Your task to perform on an android device: turn off location history Image 0: 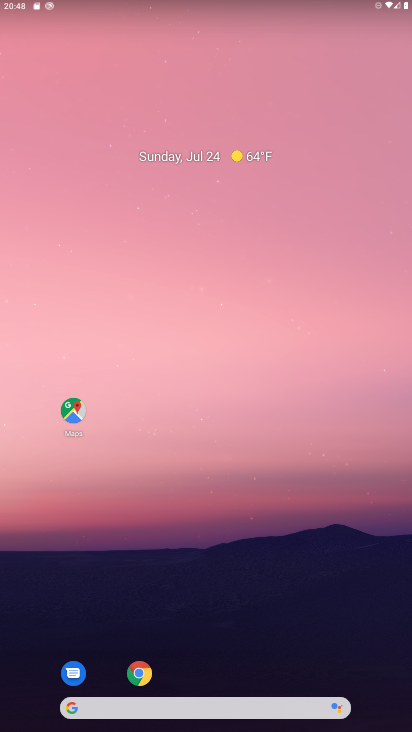
Step 0: drag from (336, 656) to (303, 109)
Your task to perform on an android device: turn off location history Image 1: 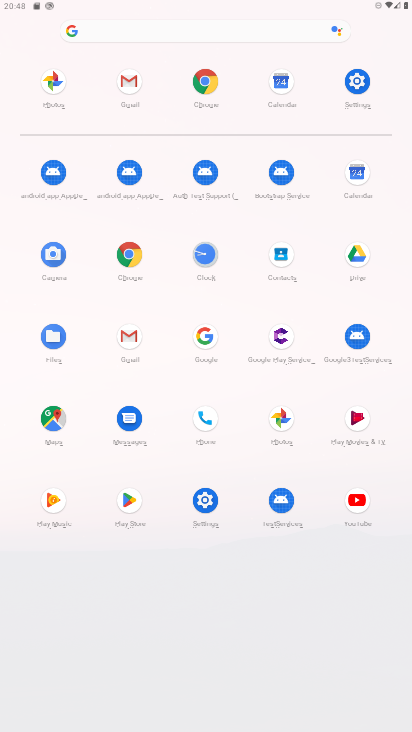
Step 1: click (203, 500)
Your task to perform on an android device: turn off location history Image 2: 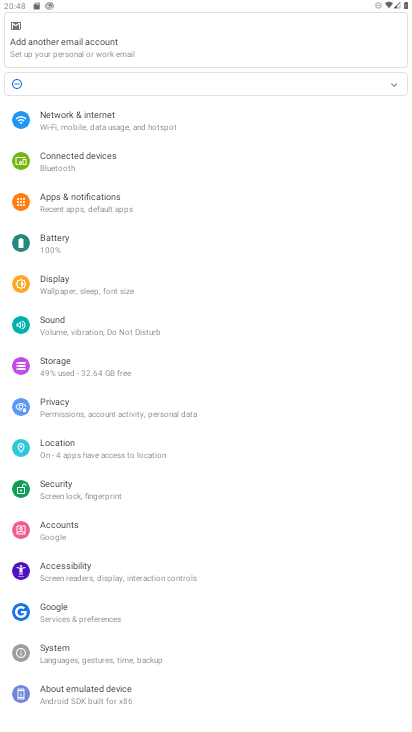
Step 2: click (133, 453)
Your task to perform on an android device: turn off location history Image 3: 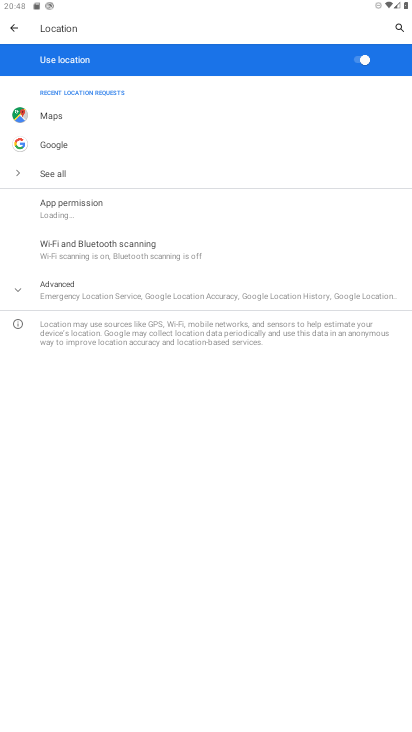
Step 3: click (109, 291)
Your task to perform on an android device: turn off location history Image 4: 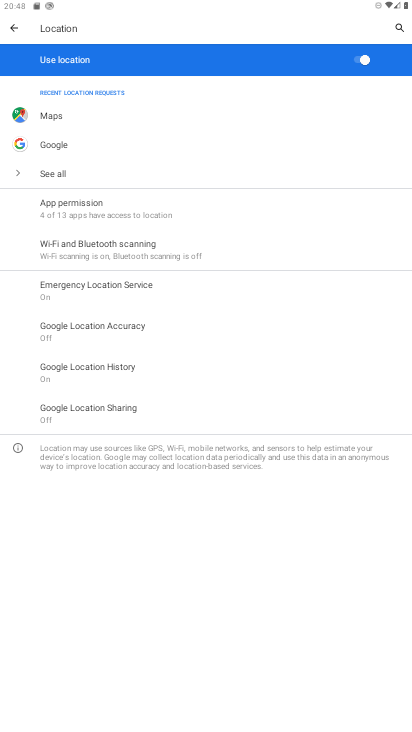
Step 4: click (134, 368)
Your task to perform on an android device: turn off location history Image 5: 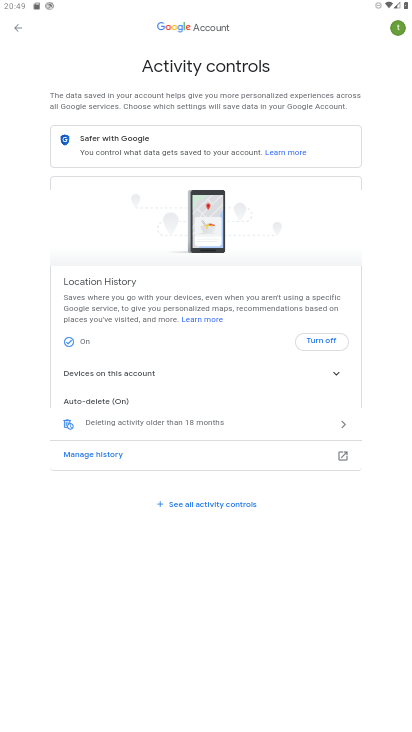
Step 5: click (317, 341)
Your task to perform on an android device: turn off location history Image 6: 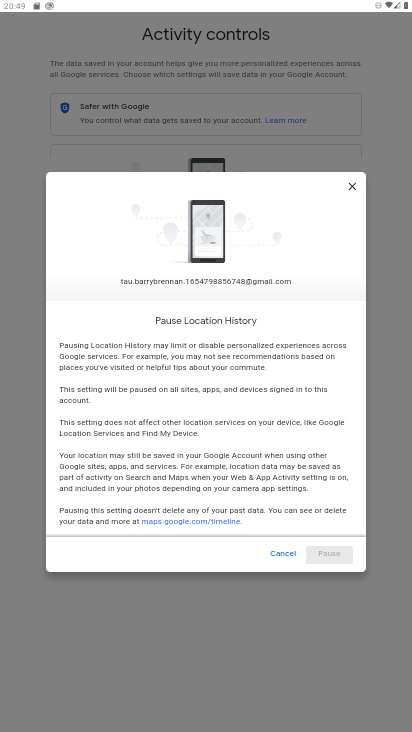
Step 6: drag from (337, 490) to (283, 262)
Your task to perform on an android device: turn off location history Image 7: 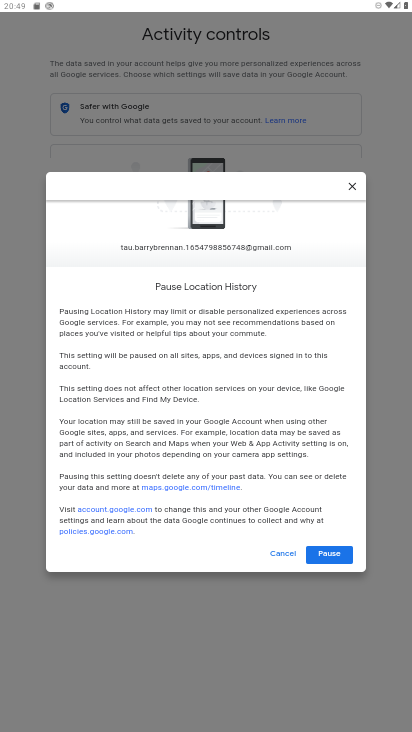
Step 7: click (338, 557)
Your task to perform on an android device: turn off location history Image 8: 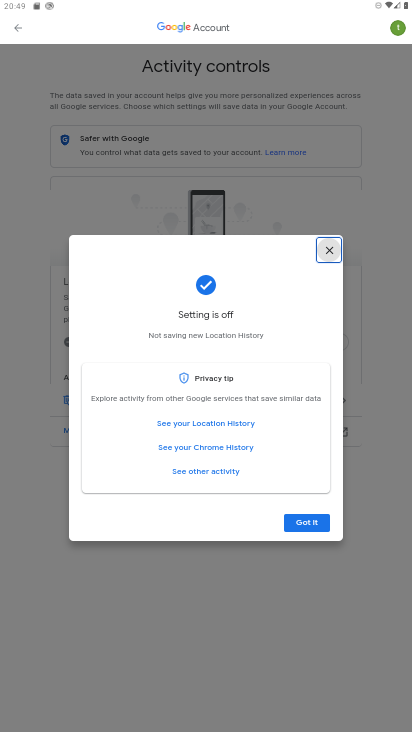
Step 8: click (313, 526)
Your task to perform on an android device: turn off location history Image 9: 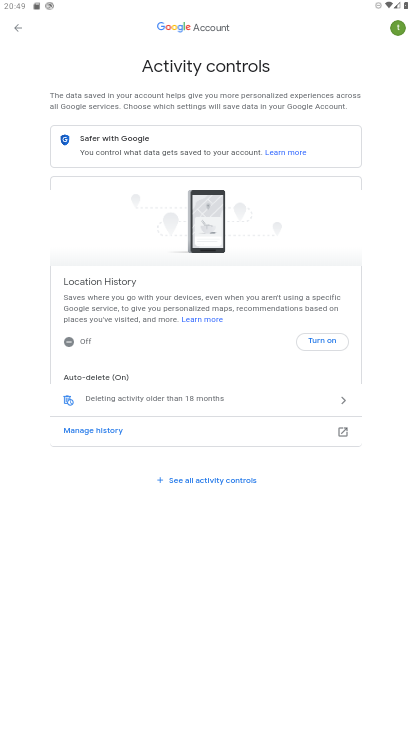
Step 9: task complete